Your task to perform on an android device: Go to Android settings Image 0: 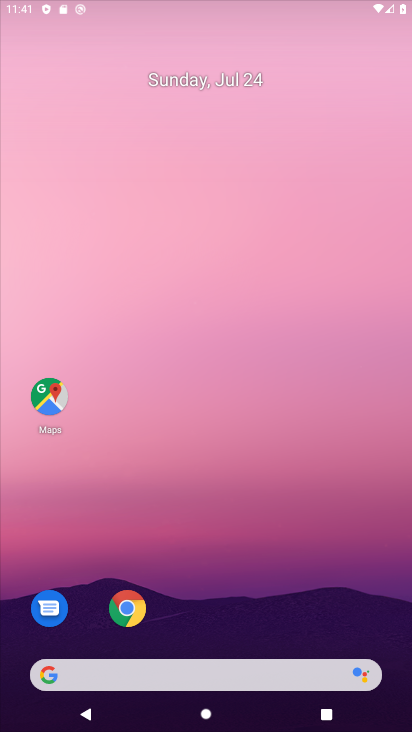
Step 0: drag from (204, 591) to (277, 146)
Your task to perform on an android device: Go to Android settings Image 1: 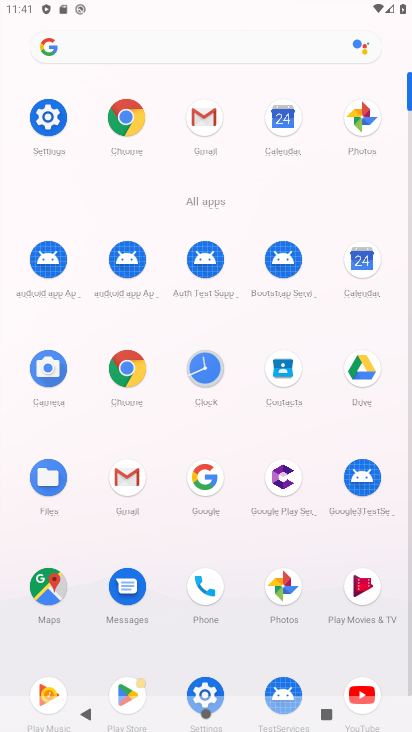
Step 1: click (53, 132)
Your task to perform on an android device: Go to Android settings Image 2: 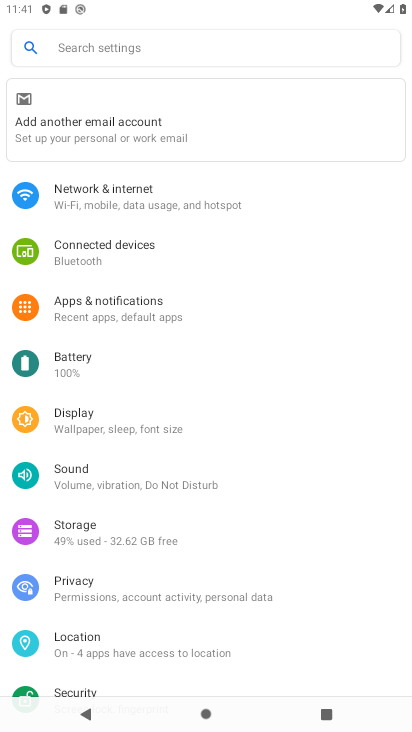
Step 2: drag from (162, 576) to (190, 227)
Your task to perform on an android device: Go to Android settings Image 3: 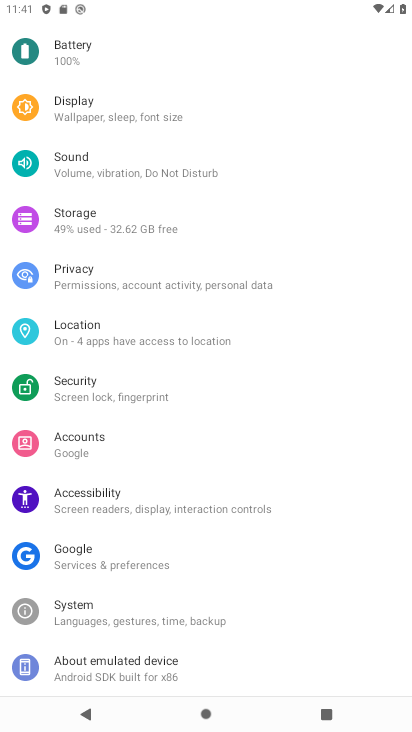
Step 3: click (161, 667)
Your task to perform on an android device: Go to Android settings Image 4: 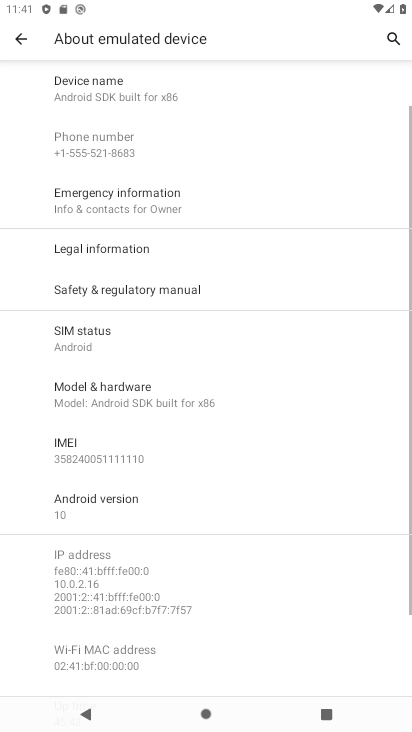
Step 4: click (120, 503)
Your task to perform on an android device: Go to Android settings Image 5: 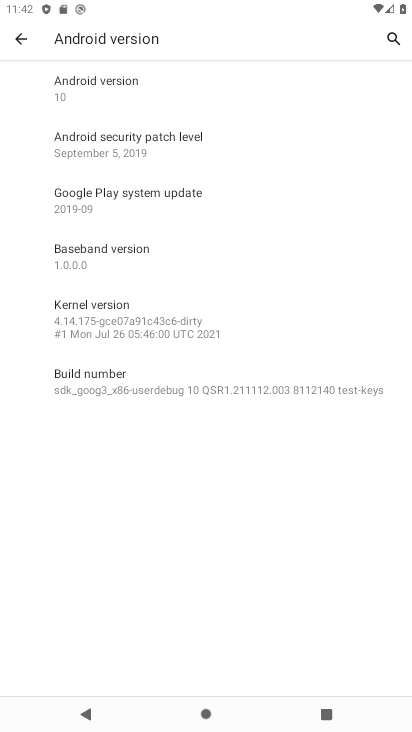
Step 5: task complete